Your task to perform on an android device: change the clock display to show seconds Image 0: 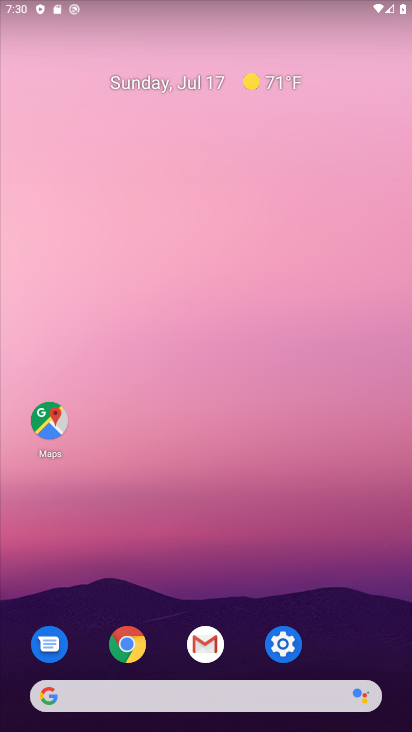
Step 0: drag from (318, 709) to (206, 177)
Your task to perform on an android device: change the clock display to show seconds Image 1: 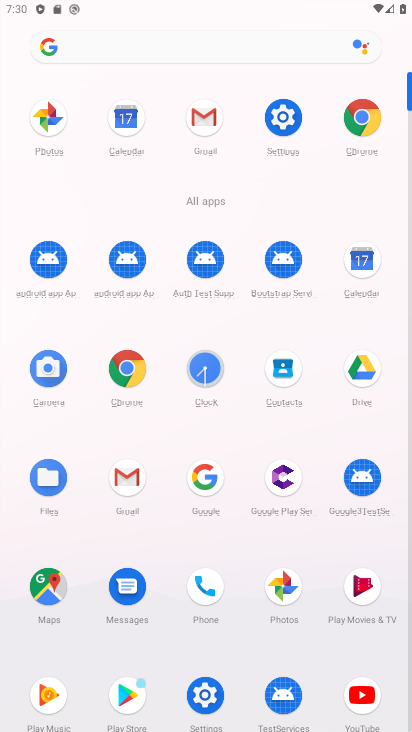
Step 1: click (206, 374)
Your task to perform on an android device: change the clock display to show seconds Image 2: 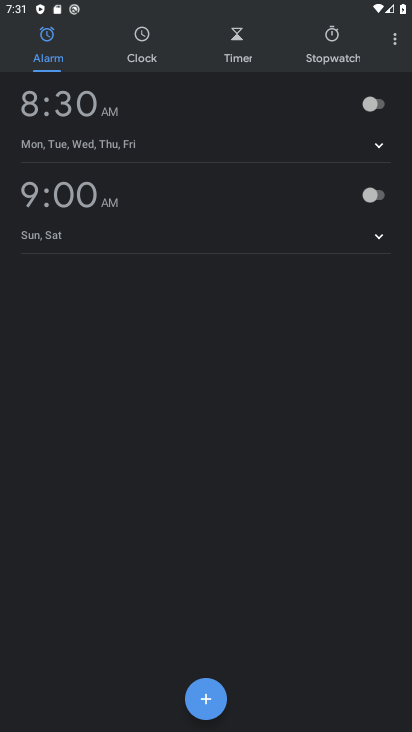
Step 2: click (386, 48)
Your task to perform on an android device: change the clock display to show seconds Image 3: 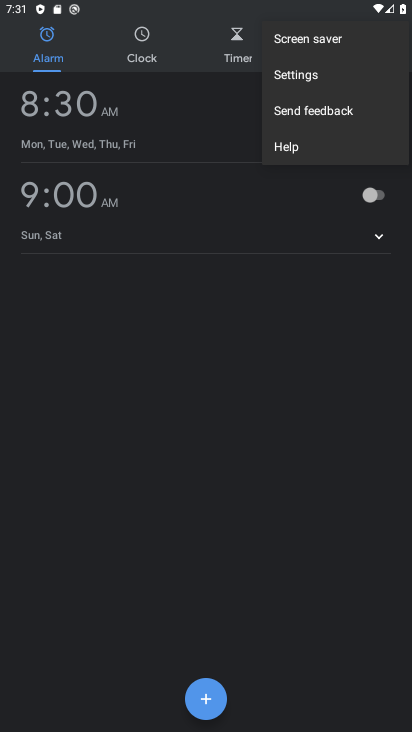
Step 3: click (301, 78)
Your task to perform on an android device: change the clock display to show seconds Image 4: 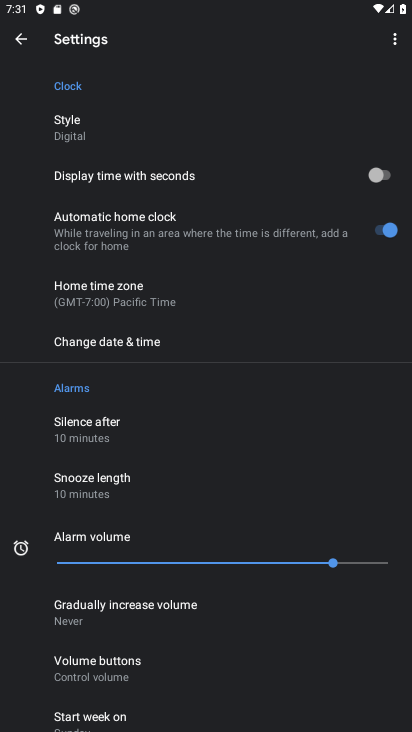
Step 4: click (93, 135)
Your task to perform on an android device: change the clock display to show seconds Image 5: 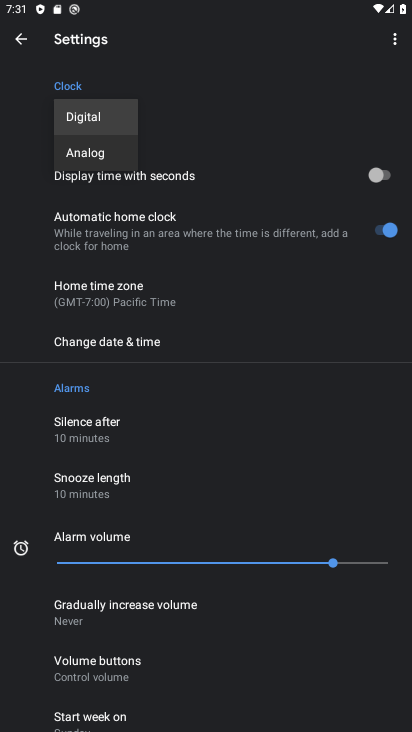
Step 5: click (374, 167)
Your task to perform on an android device: change the clock display to show seconds Image 6: 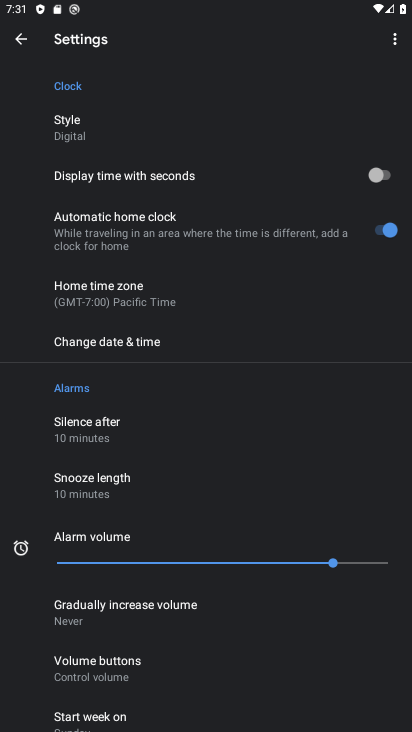
Step 6: click (376, 177)
Your task to perform on an android device: change the clock display to show seconds Image 7: 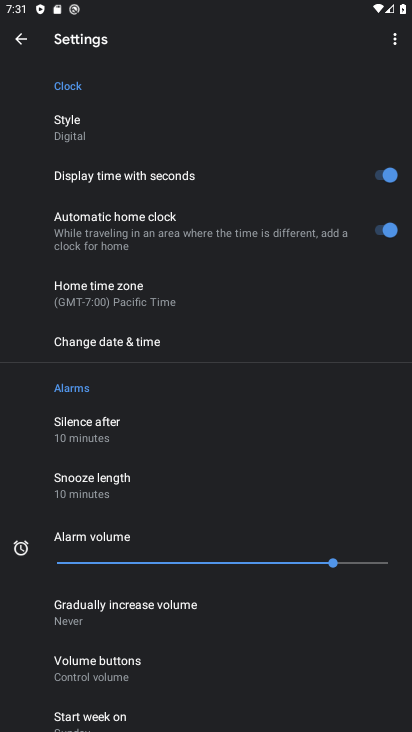
Step 7: task complete